Your task to perform on an android device: turn on airplane mode Image 0: 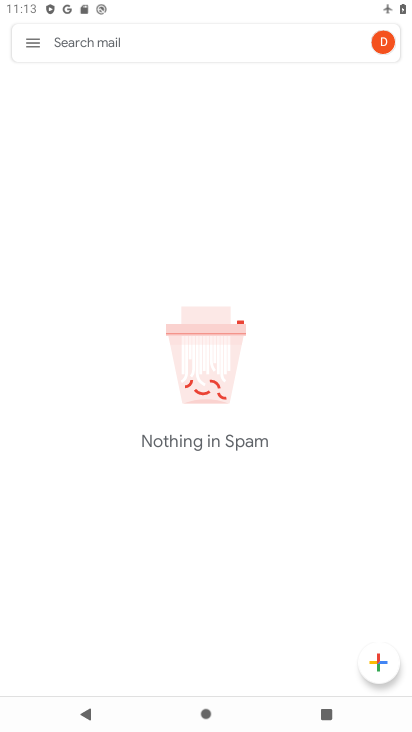
Step 0: press home button
Your task to perform on an android device: turn on airplane mode Image 1: 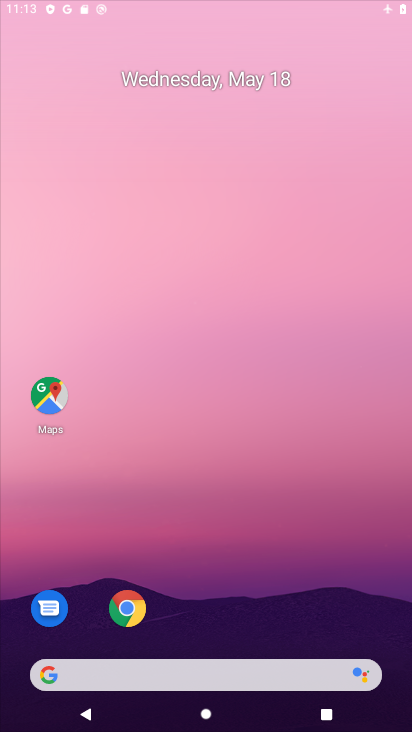
Step 1: drag from (243, 570) to (168, 26)
Your task to perform on an android device: turn on airplane mode Image 2: 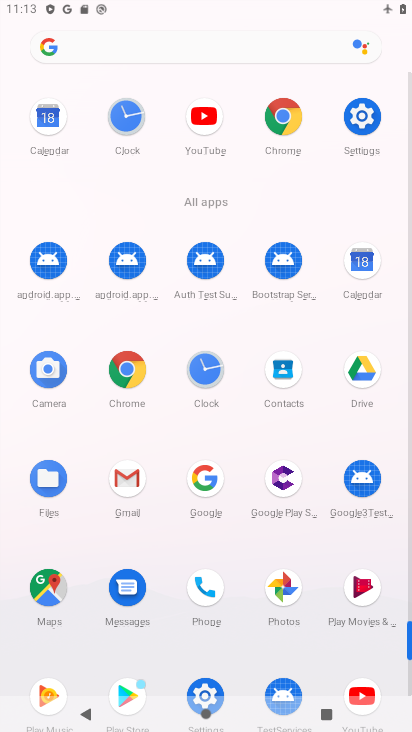
Step 2: click (358, 120)
Your task to perform on an android device: turn on airplane mode Image 3: 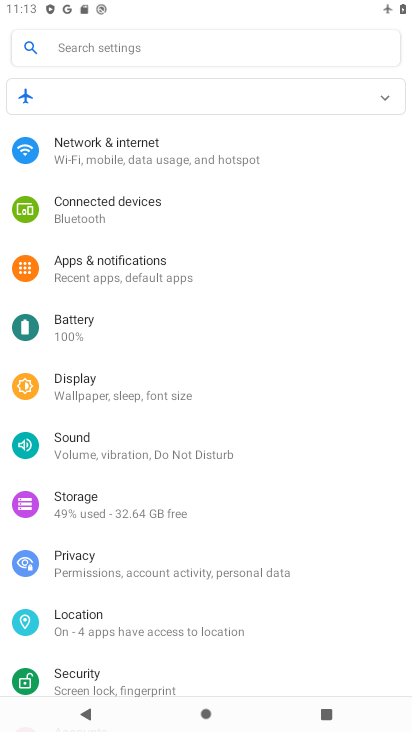
Step 3: click (89, 157)
Your task to perform on an android device: turn on airplane mode Image 4: 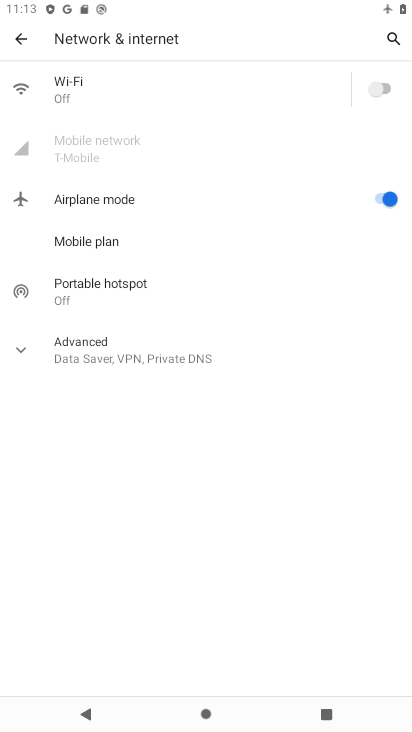
Step 4: task complete